Your task to perform on an android device: Open eBay Image 0: 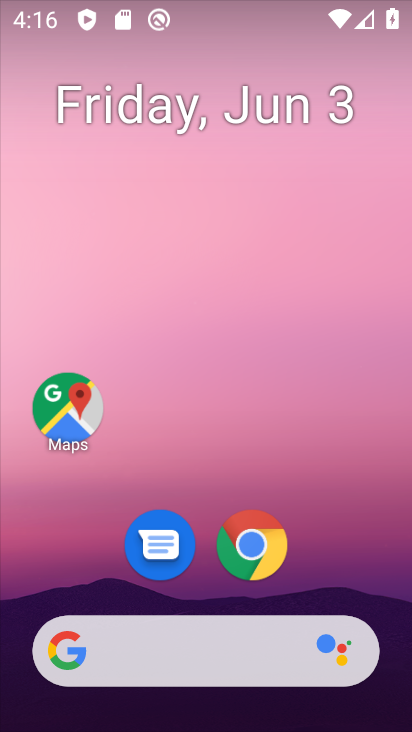
Step 0: click (246, 563)
Your task to perform on an android device: Open eBay Image 1: 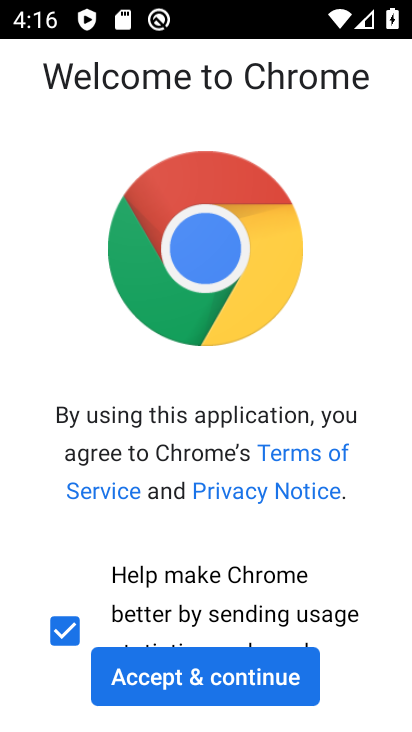
Step 1: click (240, 685)
Your task to perform on an android device: Open eBay Image 2: 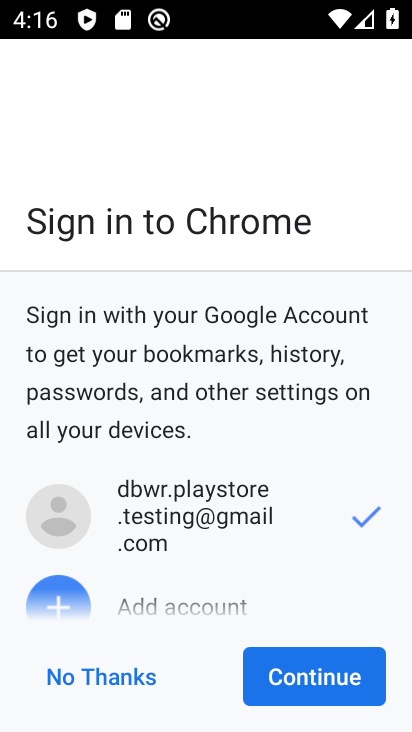
Step 2: click (359, 684)
Your task to perform on an android device: Open eBay Image 3: 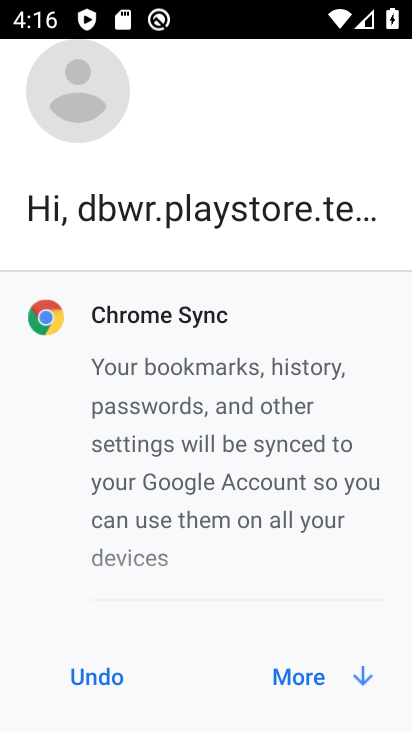
Step 3: click (358, 684)
Your task to perform on an android device: Open eBay Image 4: 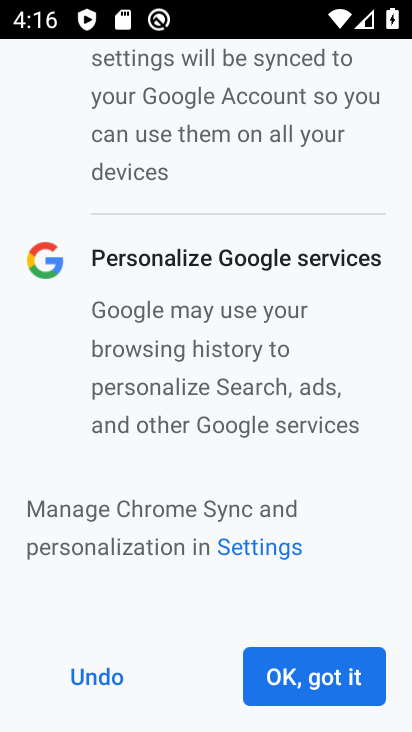
Step 4: click (358, 684)
Your task to perform on an android device: Open eBay Image 5: 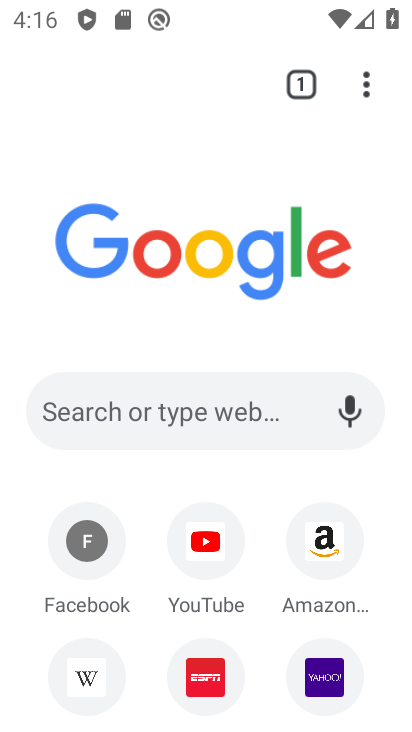
Step 5: click (199, 428)
Your task to perform on an android device: Open eBay Image 6: 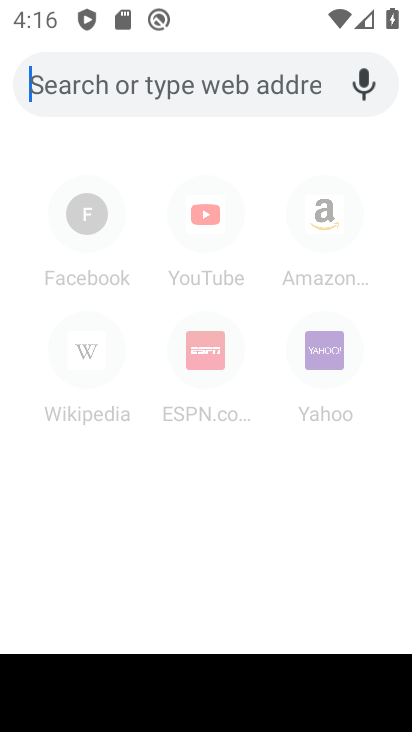
Step 6: type "eBay "
Your task to perform on an android device: Open eBay Image 7: 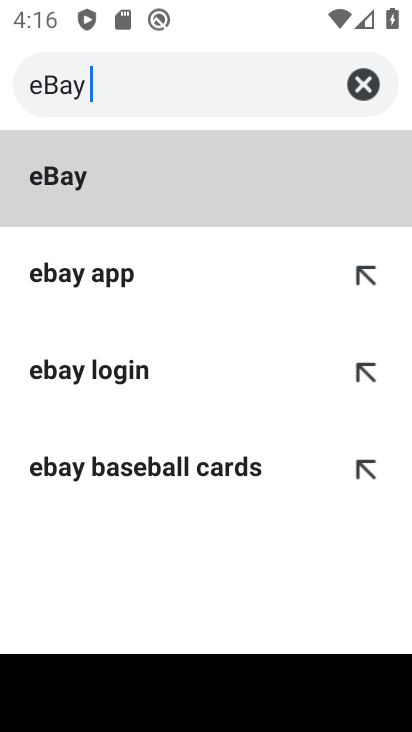
Step 7: click (263, 211)
Your task to perform on an android device: Open eBay Image 8: 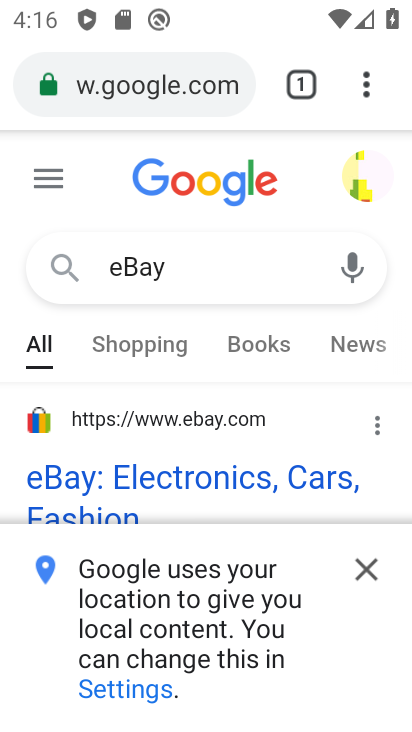
Step 8: click (363, 572)
Your task to perform on an android device: Open eBay Image 9: 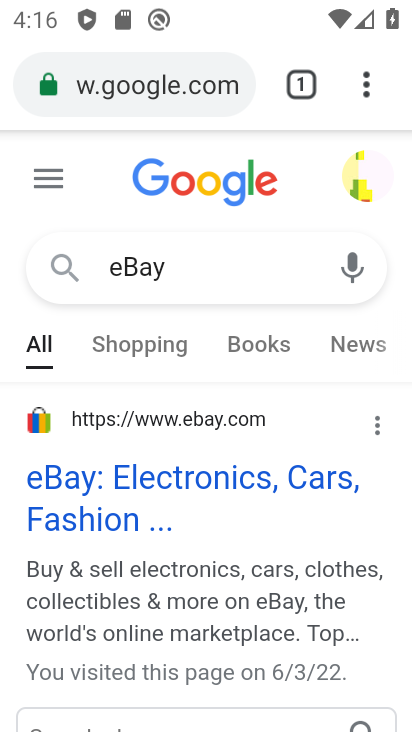
Step 9: click (100, 508)
Your task to perform on an android device: Open eBay Image 10: 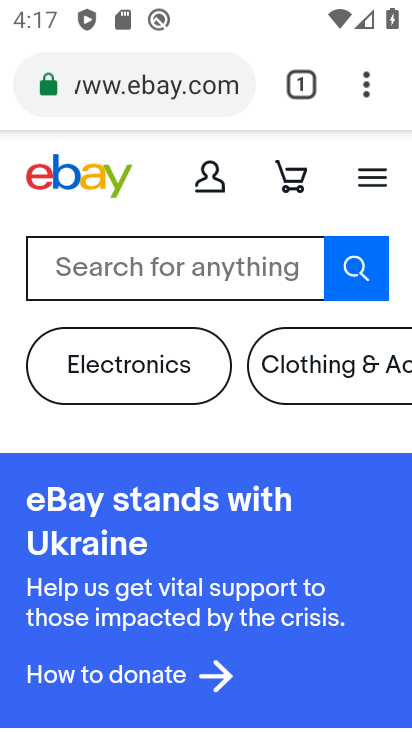
Step 10: task complete